Your task to perform on an android device: Open the calendar app, open the side menu, and click the "Day" option Image 0: 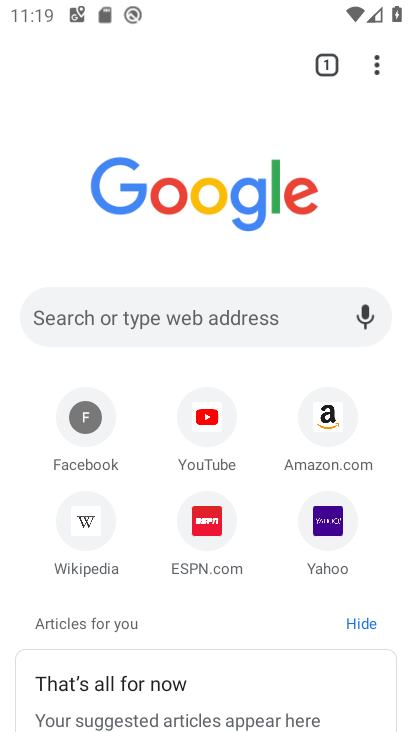
Step 0: press home button
Your task to perform on an android device: Open the calendar app, open the side menu, and click the "Day" option Image 1: 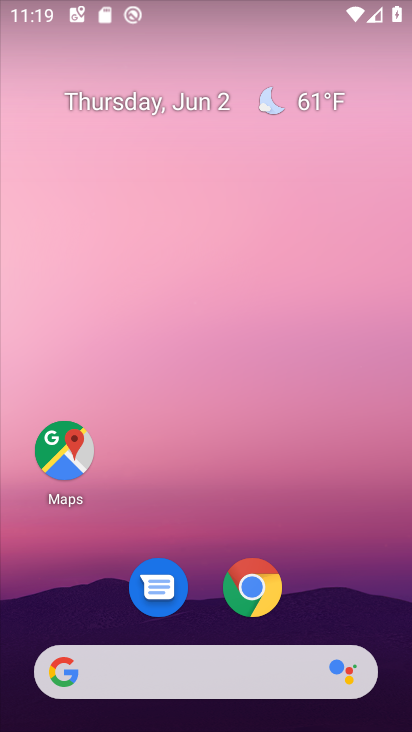
Step 1: drag from (292, 534) to (288, 0)
Your task to perform on an android device: Open the calendar app, open the side menu, and click the "Day" option Image 2: 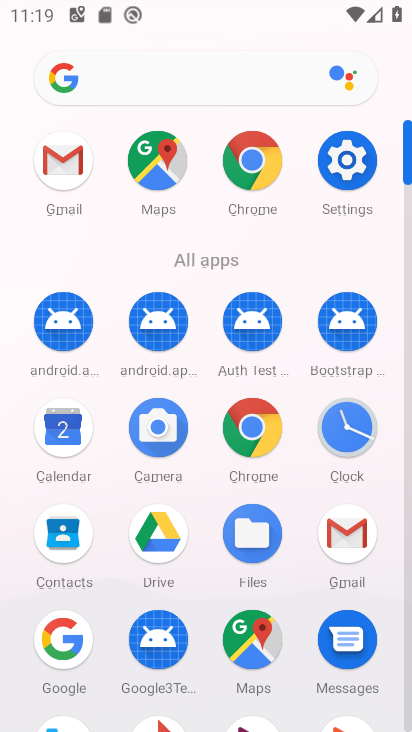
Step 2: click (62, 420)
Your task to perform on an android device: Open the calendar app, open the side menu, and click the "Day" option Image 3: 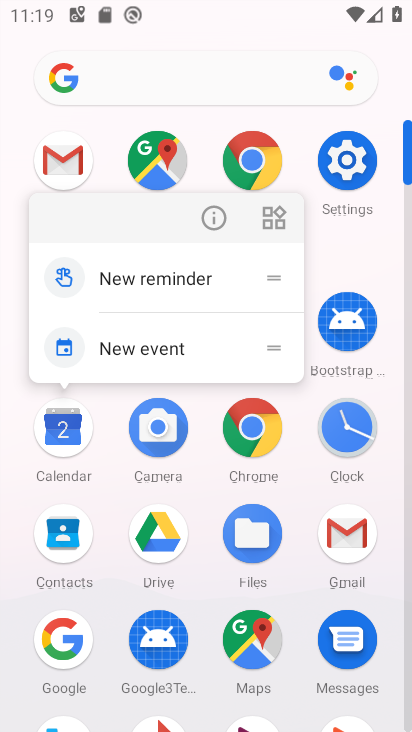
Step 3: click (62, 420)
Your task to perform on an android device: Open the calendar app, open the side menu, and click the "Day" option Image 4: 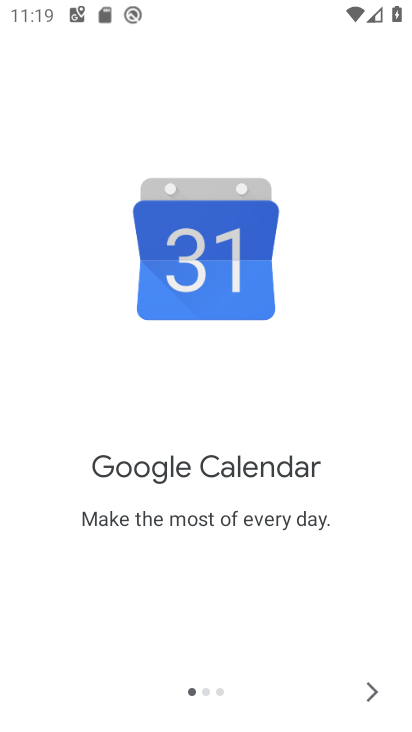
Step 4: click (374, 691)
Your task to perform on an android device: Open the calendar app, open the side menu, and click the "Day" option Image 5: 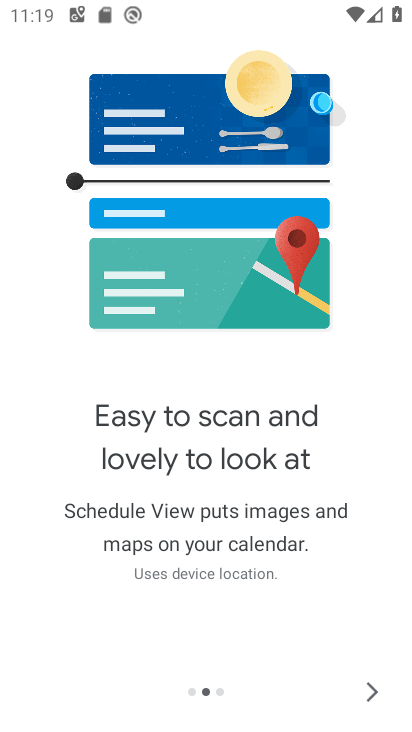
Step 5: click (374, 691)
Your task to perform on an android device: Open the calendar app, open the side menu, and click the "Day" option Image 6: 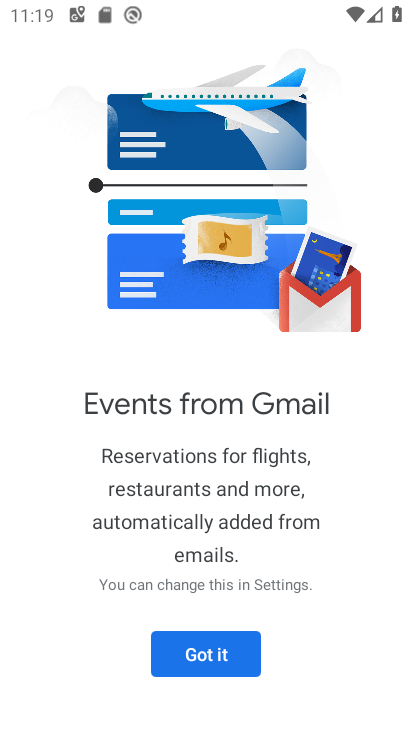
Step 6: click (239, 653)
Your task to perform on an android device: Open the calendar app, open the side menu, and click the "Day" option Image 7: 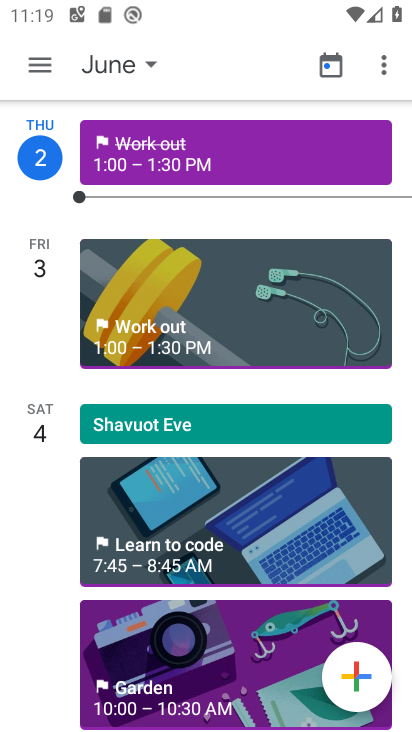
Step 7: click (43, 69)
Your task to perform on an android device: Open the calendar app, open the side menu, and click the "Day" option Image 8: 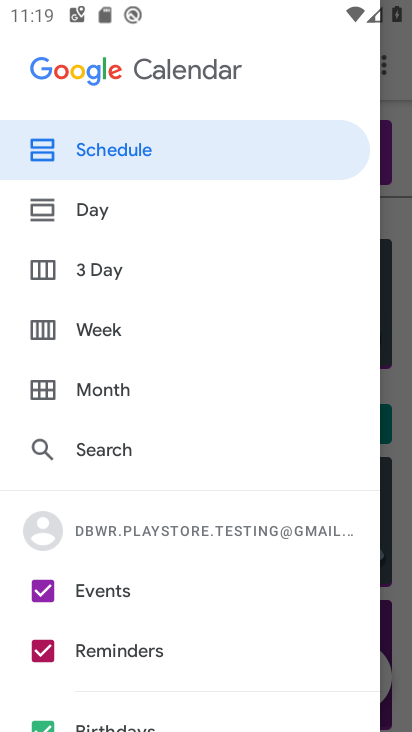
Step 8: click (52, 198)
Your task to perform on an android device: Open the calendar app, open the side menu, and click the "Day" option Image 9: 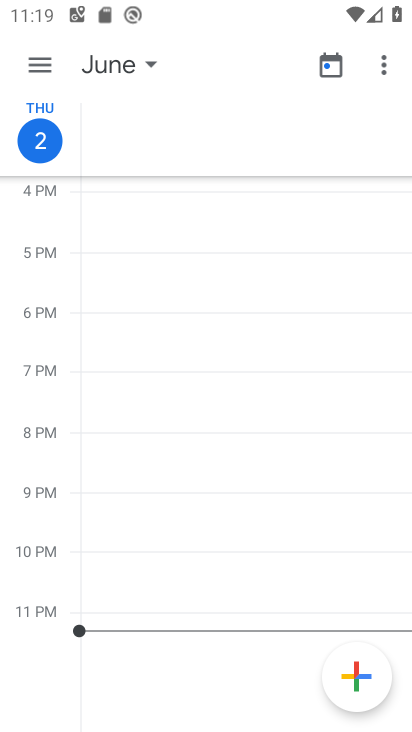
Step 9: task complete